Your task to perform on an android device: see tabs open on other devices in the chrome app Image 0: 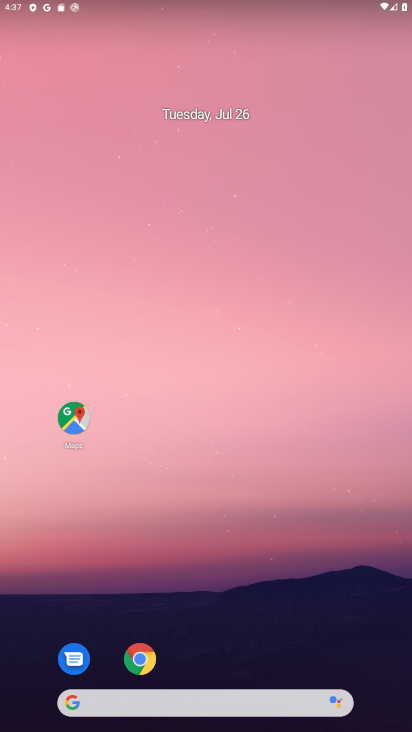
Step 0: press home button
Your task to perform on an android device: see tabs open on other devices in the chrome app Image 1: 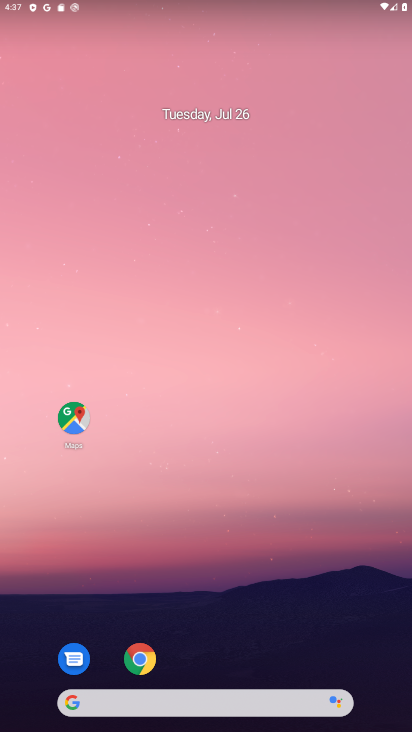
Step 1: click (137, 654)
Your task to perform on an android device: see tabs open on other devices in the chrome app Image 2: 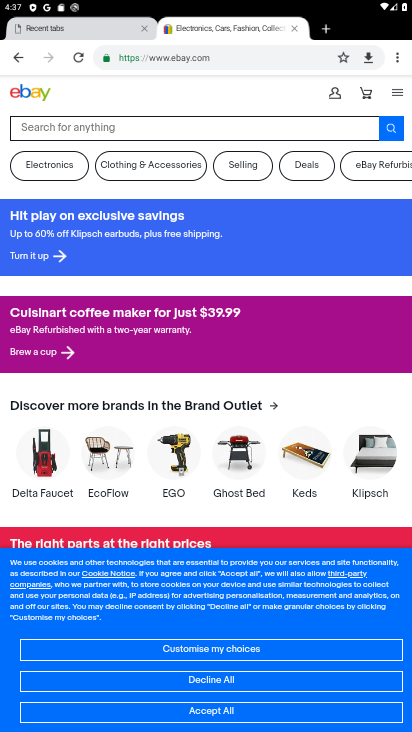
Step 2: click (397, 53)
Your task to perform on an android device: see tabs open on other devices in the chrome app Image 3: 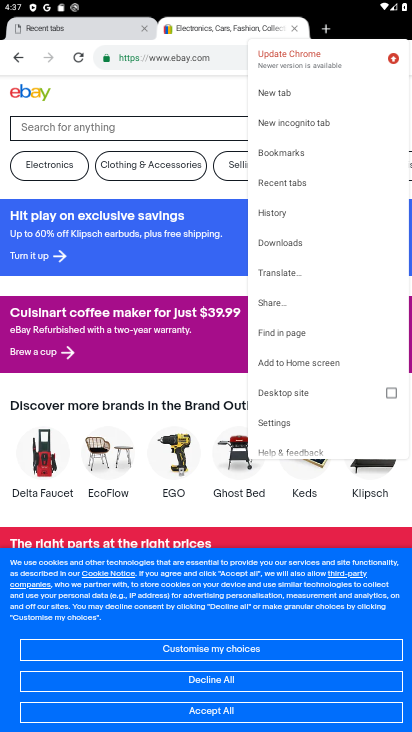
Step 3: click (308, 183)
Your task to perform on an android device: see tabs open on other devices in the chrome app Image 4: 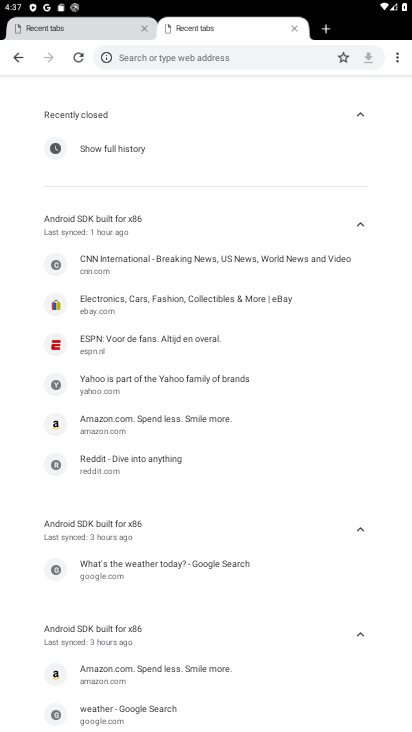
Step 4: task complete